Your task to perform on an android device: open app "Upside-Cash back on gas & food" (install if not already installed) Image 0: 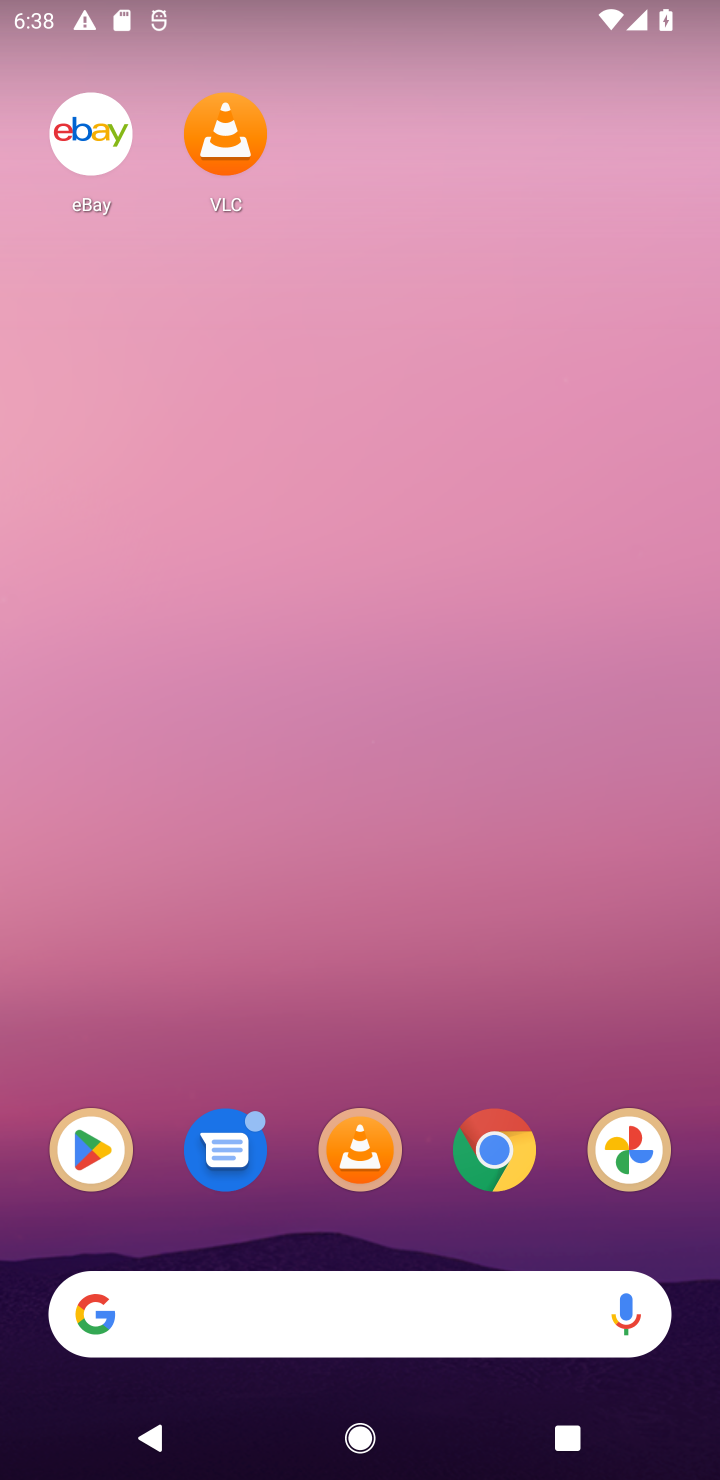
Step 0: click (120, 1148)
Your task to perform on an android device: open app "Upside-Cash back on gas & food" (install if not already installed) Image 1: 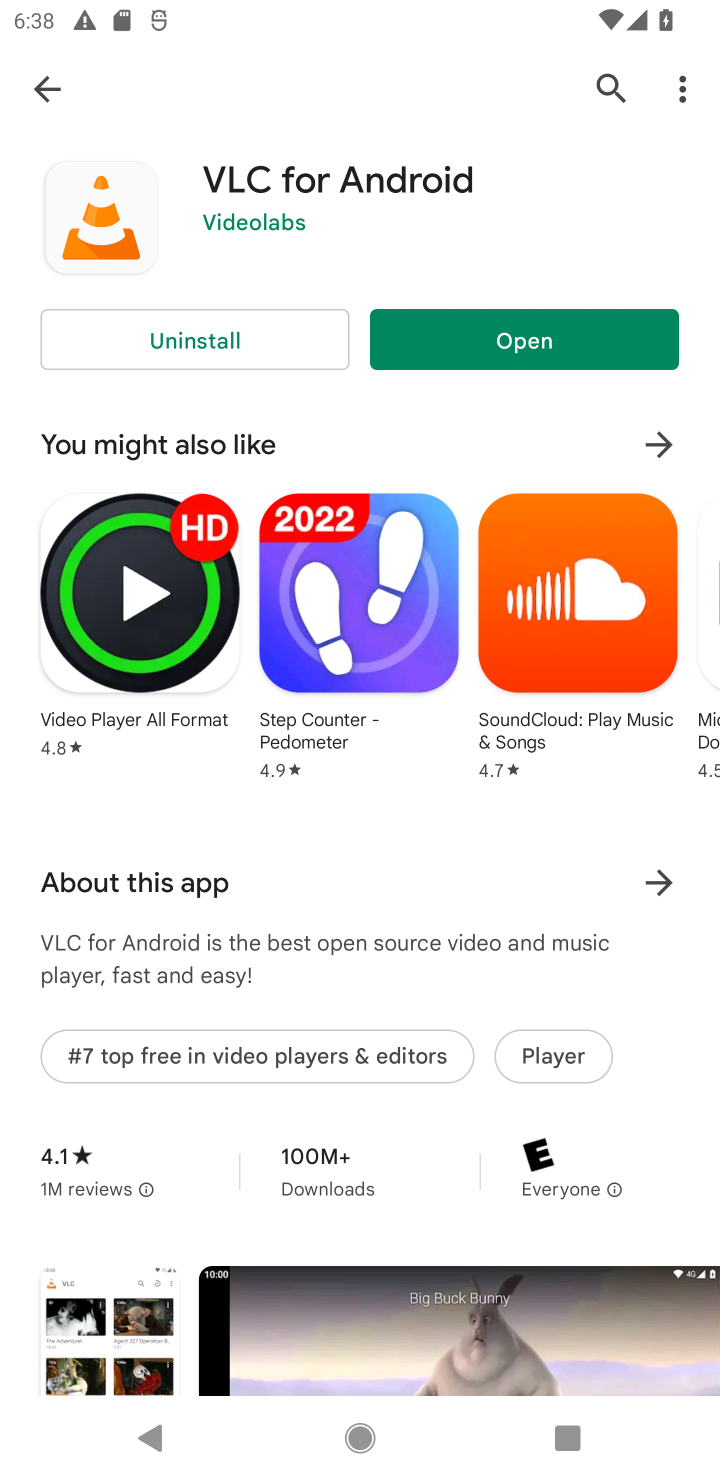
Step 1: click (38, 93)
Your task to perform on an android device: open app "Upside-Cash back on gas & food" (install if not already installed) Image 2: 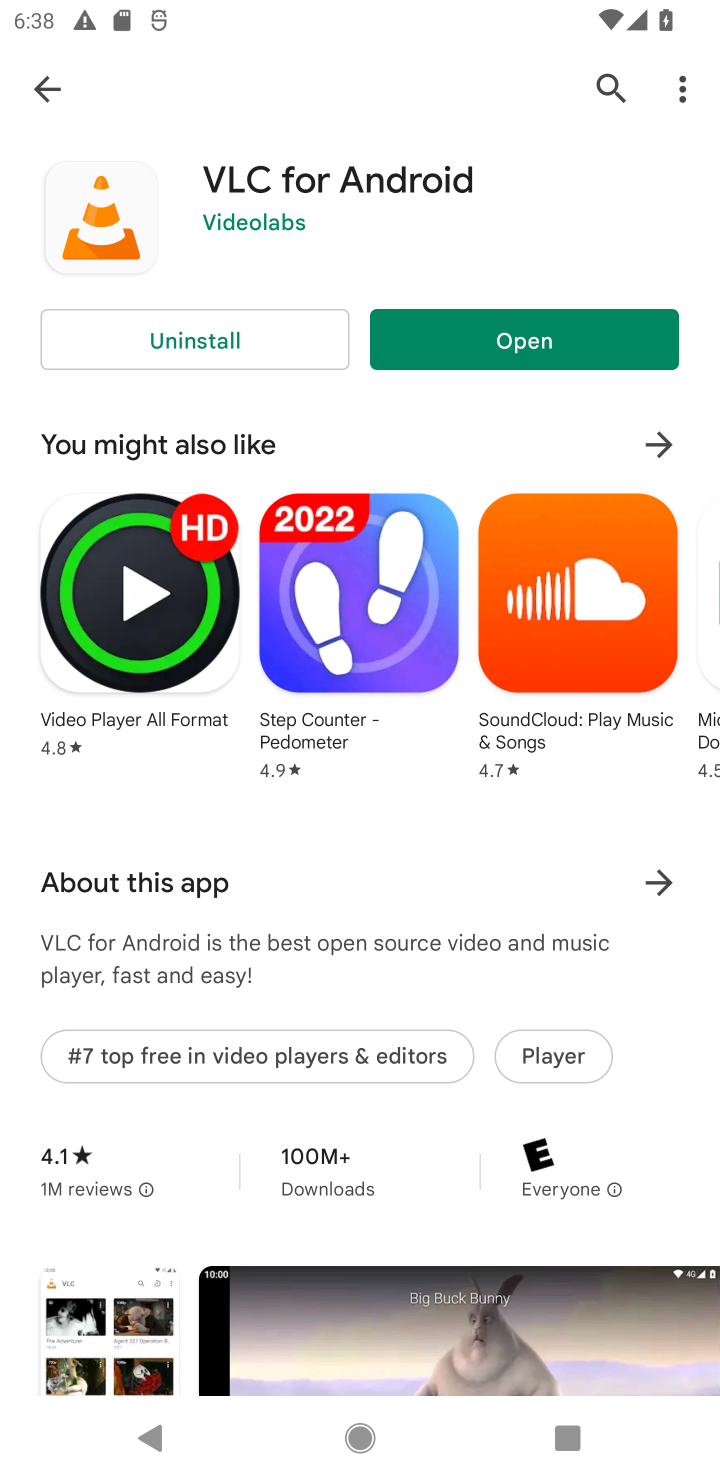
Step 2: click (52, 93)
Your task to perform on an android device: open app "Upside-Cash back on gas & food" (install if not already installed) Image 3: 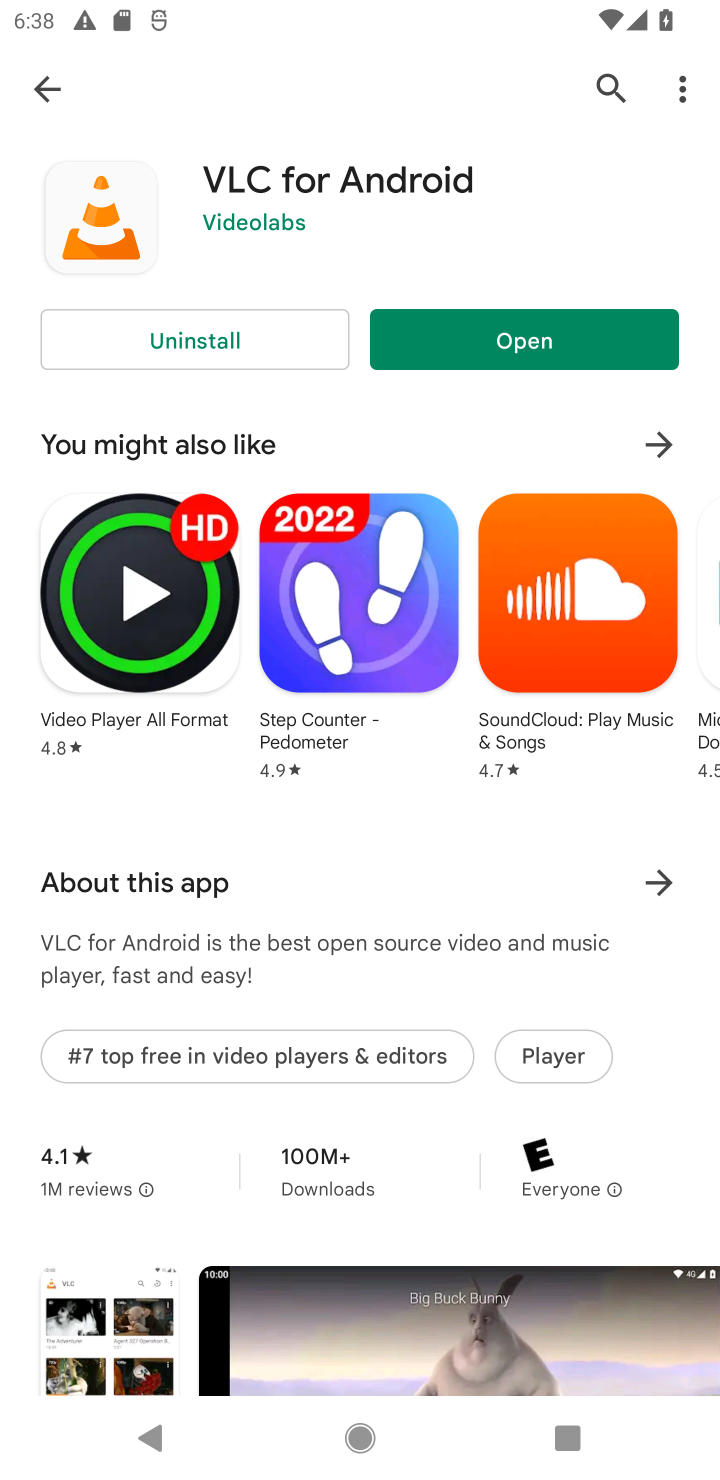
Step 3: click (52, 93)
Your task to perform on an android device: open app "Upside-Cash back on gas & food" (install if not already installed) Image 4: 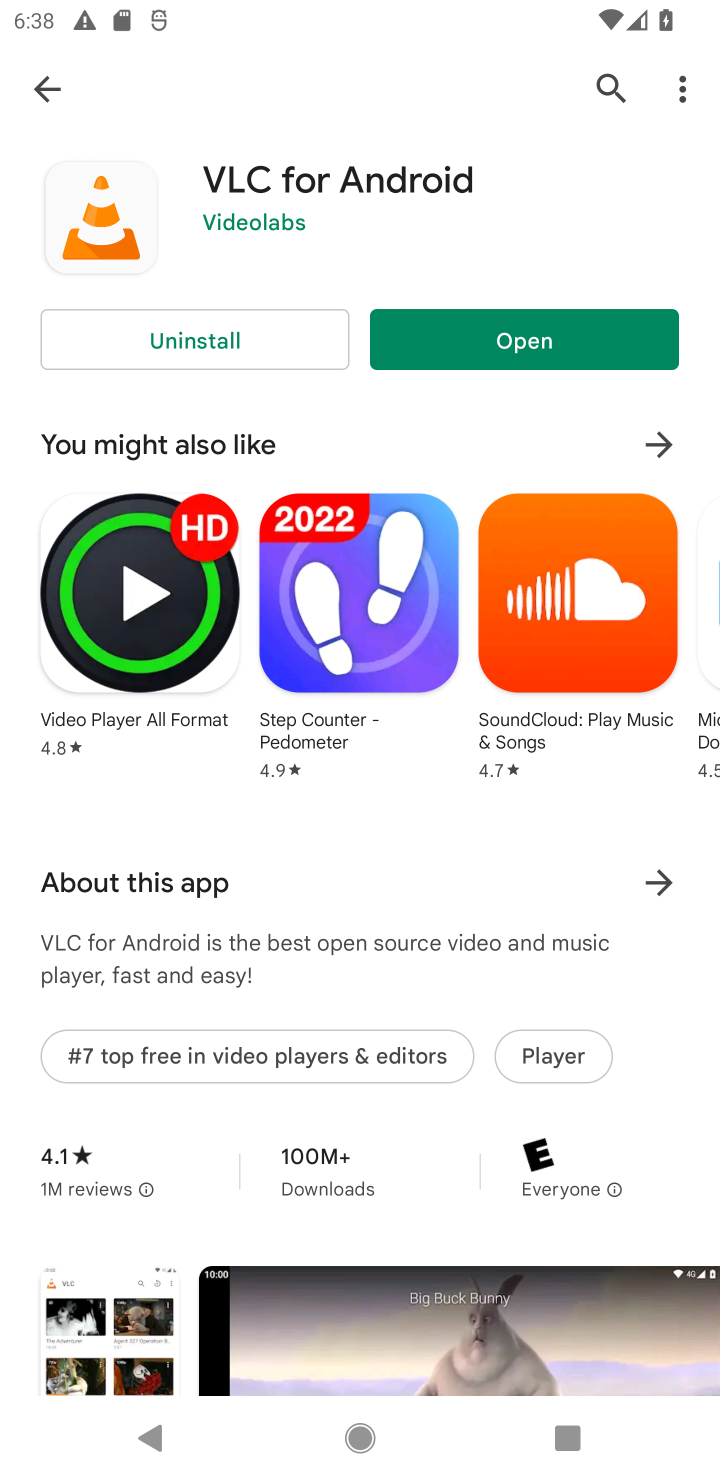
Step 4: click (593, 94)
Your task to perform on an android device: open app "Upside-Cash back on gas & food" (install if not already installed) Image 5: 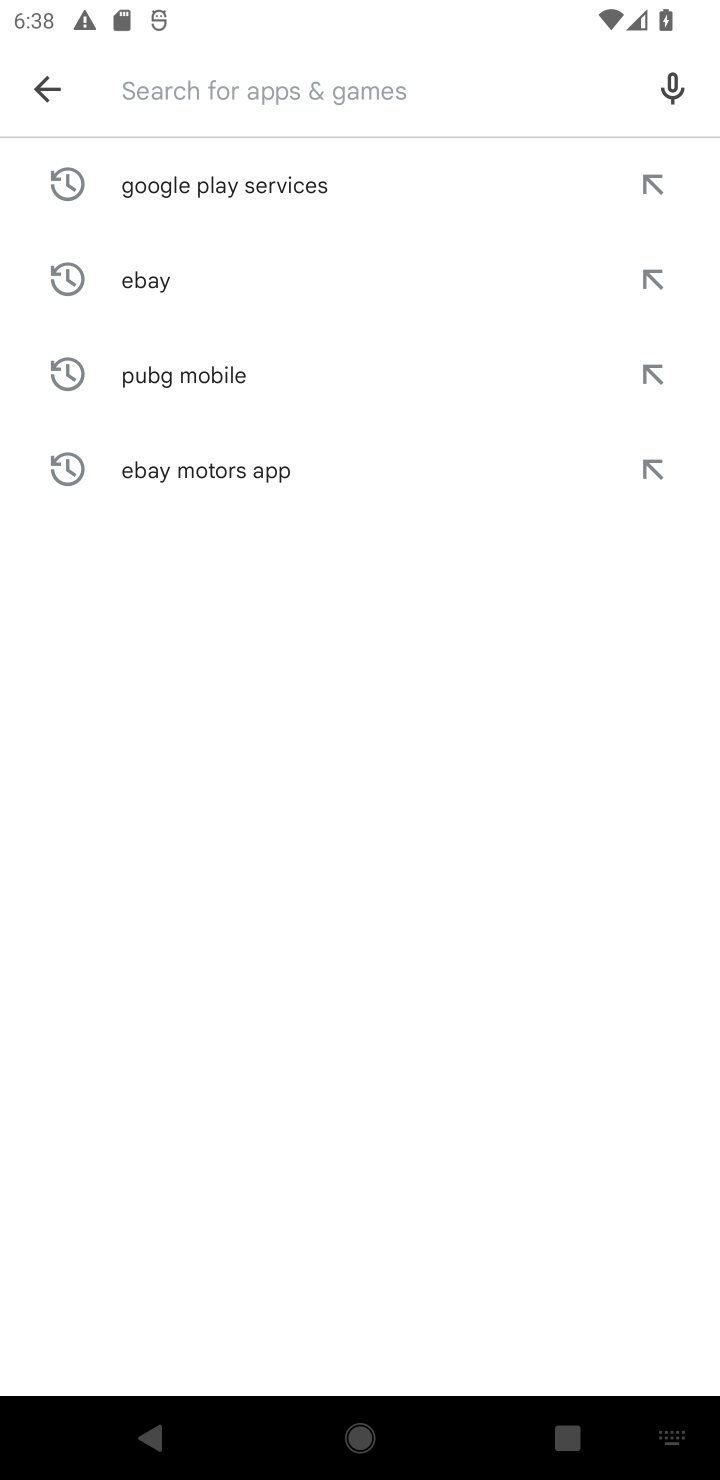
Step 5: type "Upside-Cash back on gas & food"
Your task to perform on an android device: open app "Upside-Cash back on gas & food" (install if not already installed) Image 6: 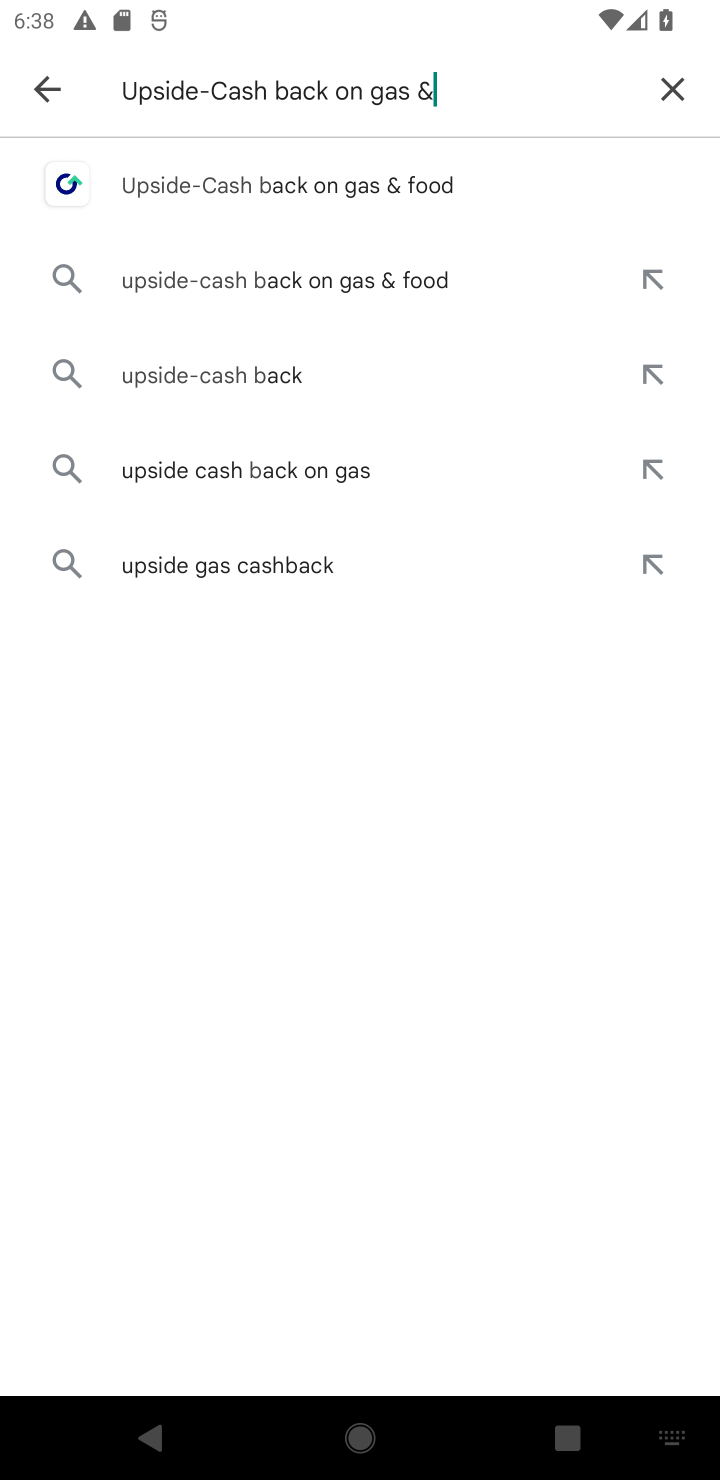
Step 6: type ""
Your task to perform on an android device: open app "Upside-Cash back on gas & food" (install if not already installed) Image 7: 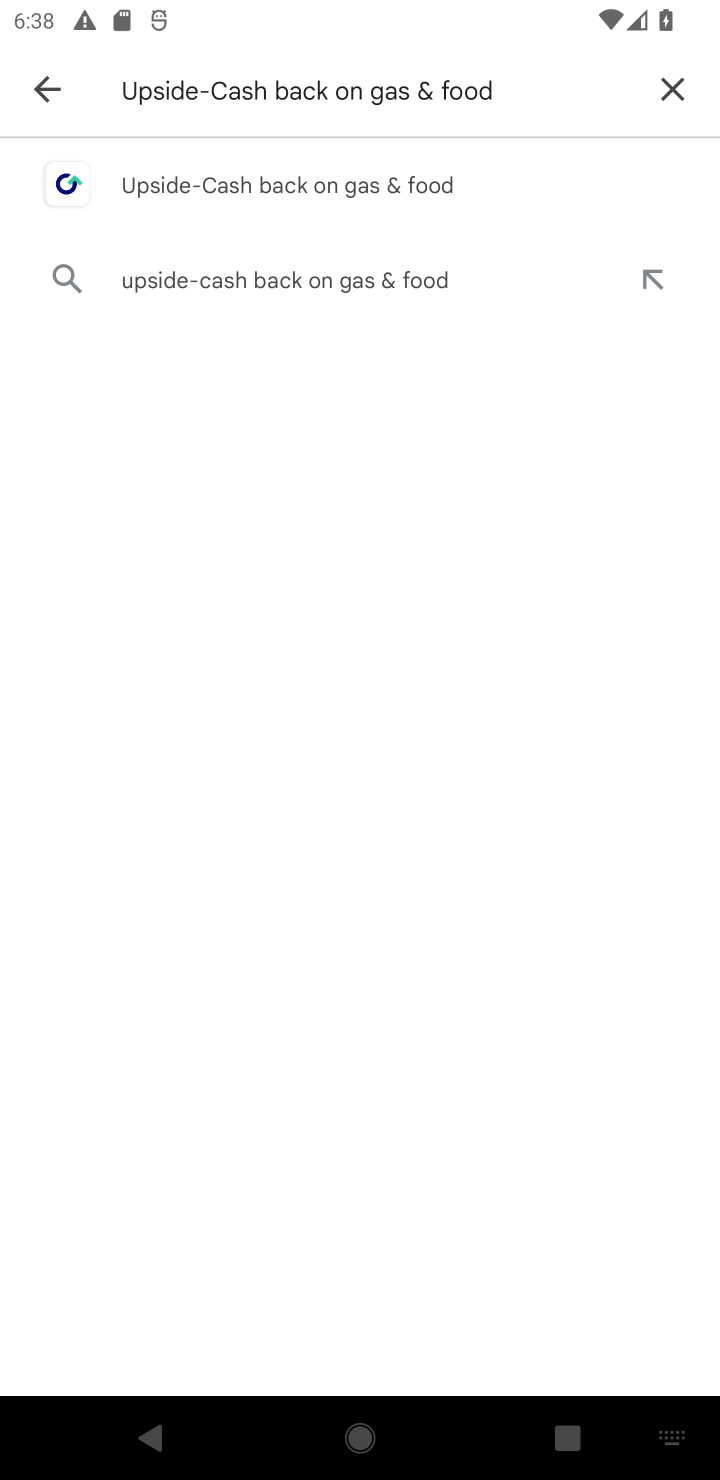
Step 7: click (250, 217)
Your task to perform on an android device: open app "Upside-Cash back on gas & food" (install if not already installed) Image 8: 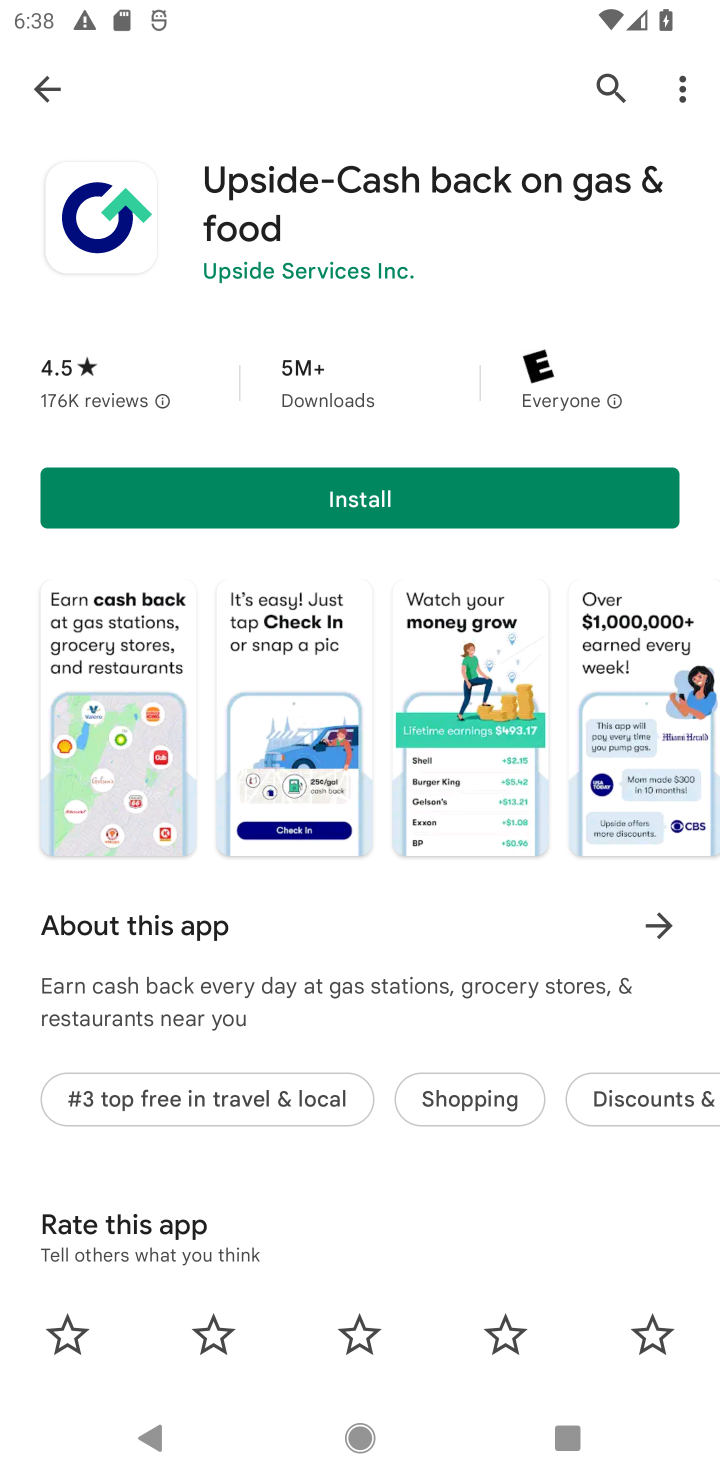
Step 8: click (314, 512)
Your task to perform on an android device: open app "Upside-Cash back on gas & food" (install if not already installed) Image 9: 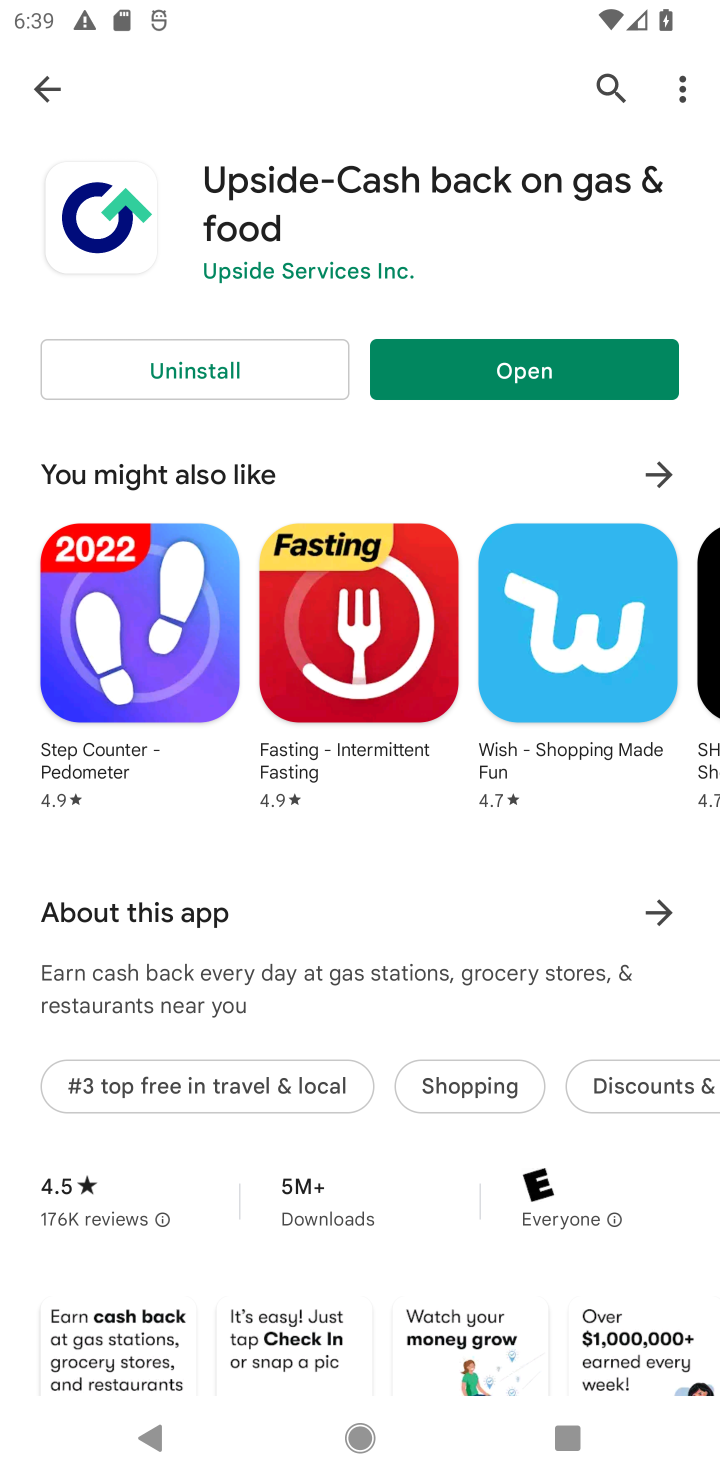
Step 9: click (546, 391)
Your task to perform on an android device: open app "Upside-Cash back on gas & food" (install if not already installed) Image 10: 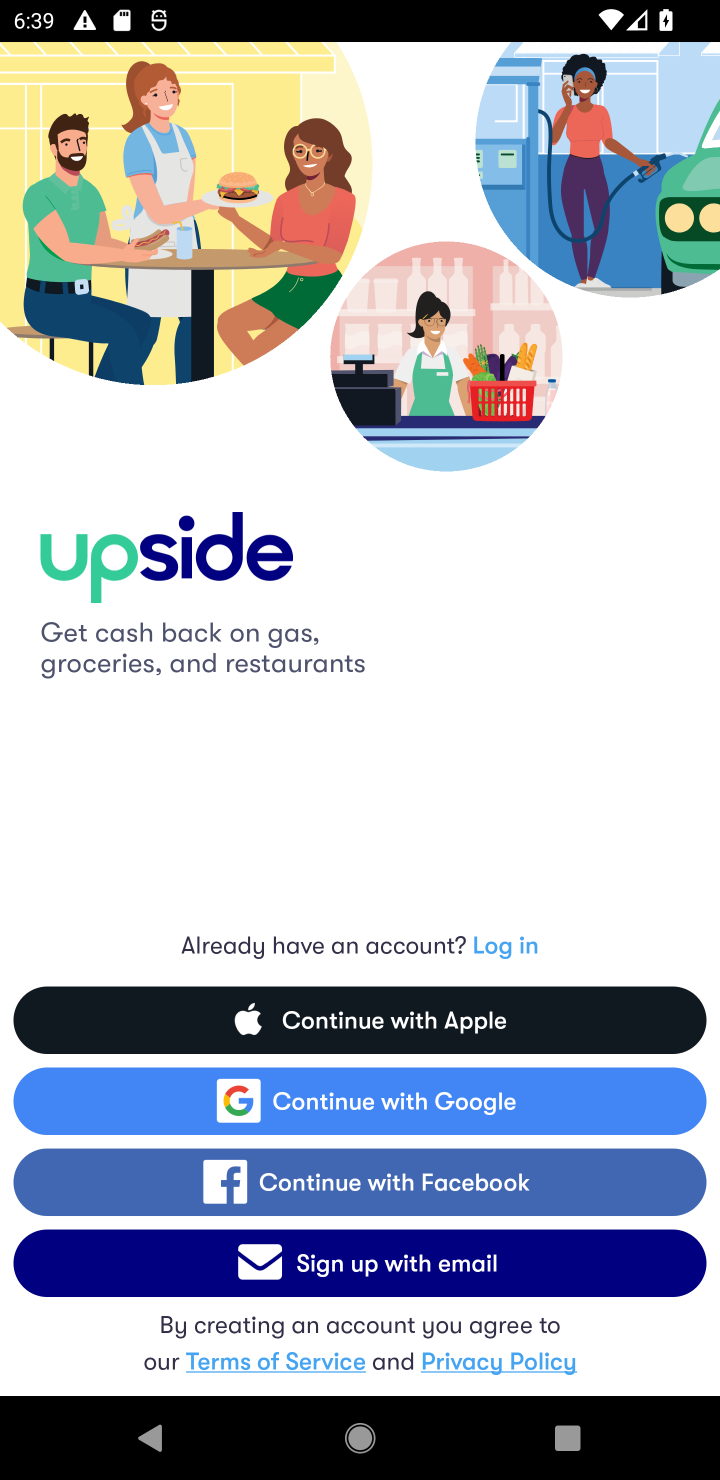
Step 10: task complete